Your task to perform on an android device: Open Chrome and go to settings Image 0: 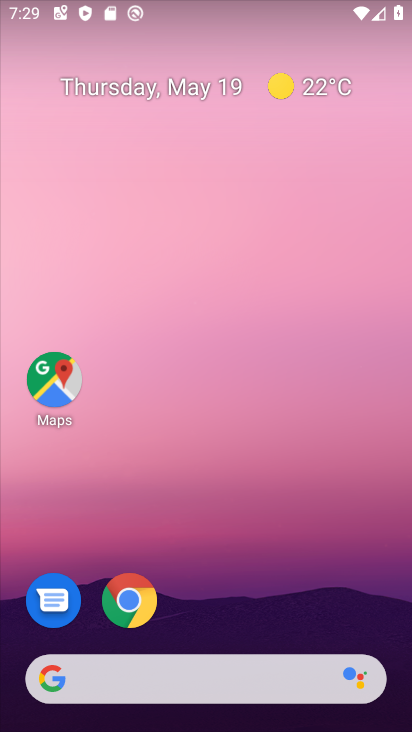
Step 0: drag from (318, 596) to (326, 190)
Your task to perform on an android device: Open Chrome and go to settings Image 1: 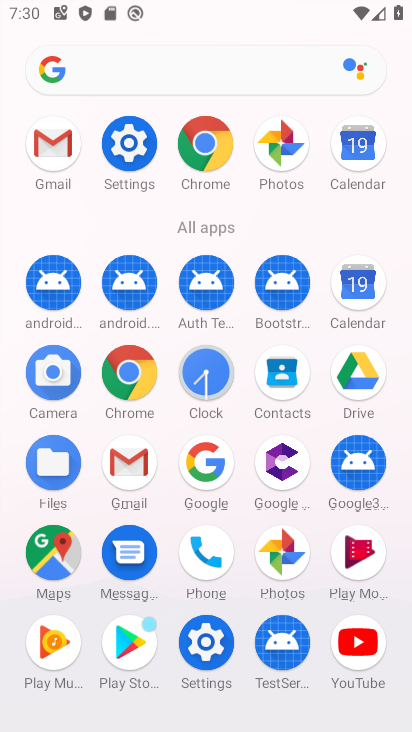
Step 1: click (132, 375)
Your task to perform on an android device: Open Chrome and go to settings Image 2: 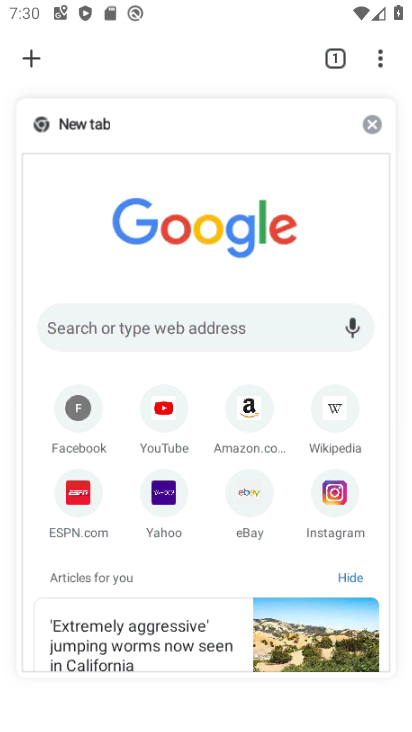
Step 2: task complete